Your task to perform on an android device: set default search engine in the chrome app Image 0: 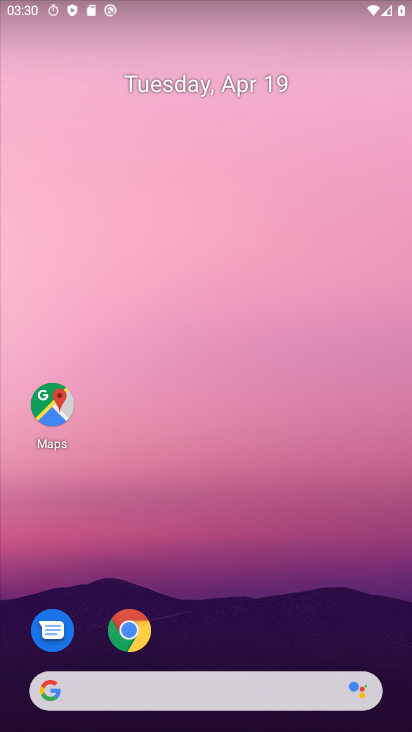
Step 0: click (141, 633)
Your task to perform on an android device: set default search engine in the chrome app Image 1: 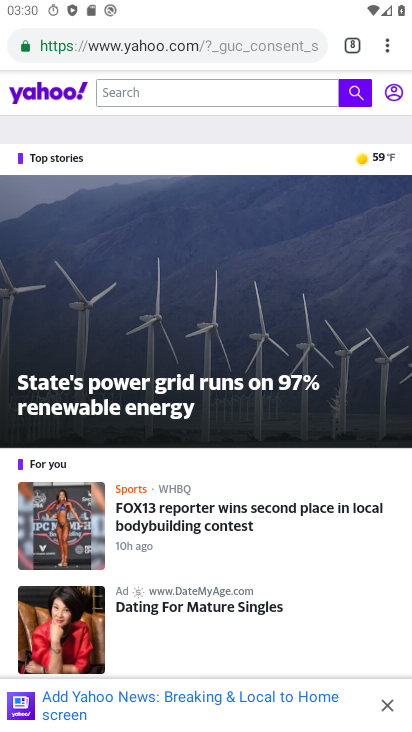
Step 1: click (393, 37)
Your task to perform on an android device: set default search engine in the chrome app Image 2: 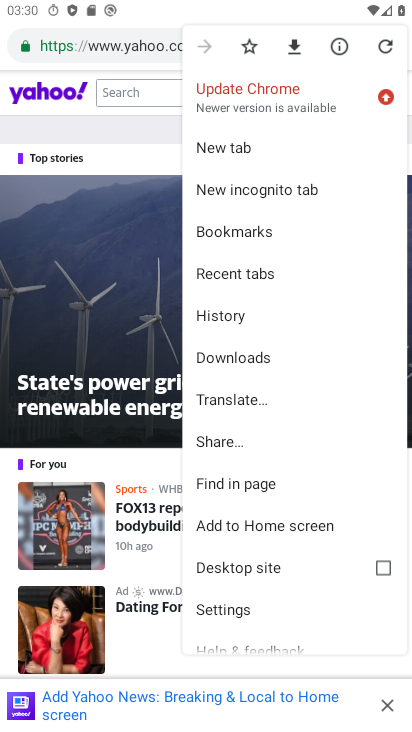
Step 2: click (243, 609)
Your task to perform on an android device: set default search engine in the chrome app Image 3: 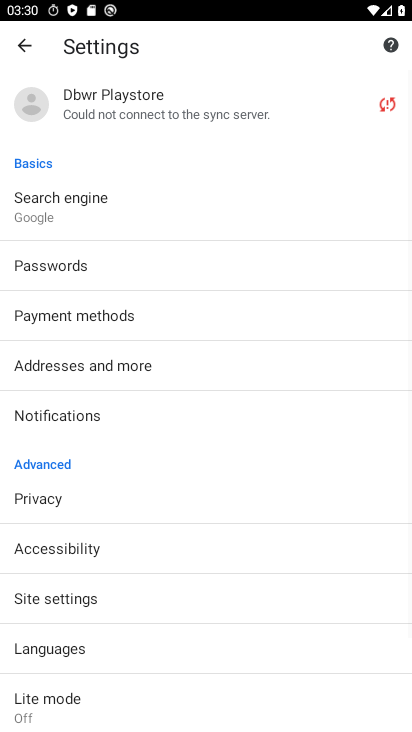
Step 3: click (136, 210)
Your task to perform on an android device: set default search engine in the chrome app Image 4: 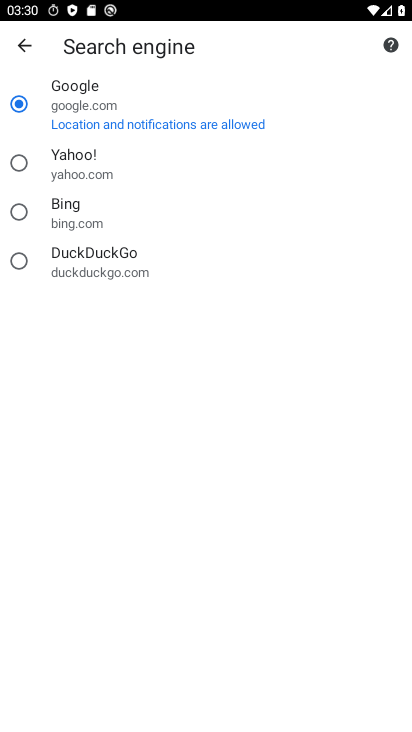
Step 4: click (20, 159)
Your task to perform on an android device: set default search engine in the chrome app Image 5: 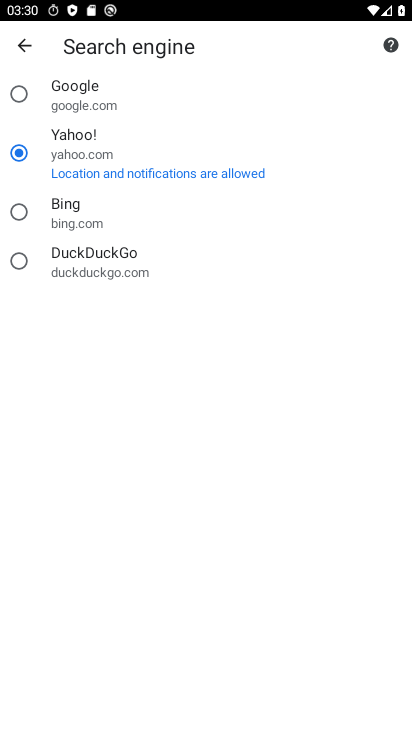
Step 5: task complete